Your task to perform on an android device: What is the news today? Image 0: 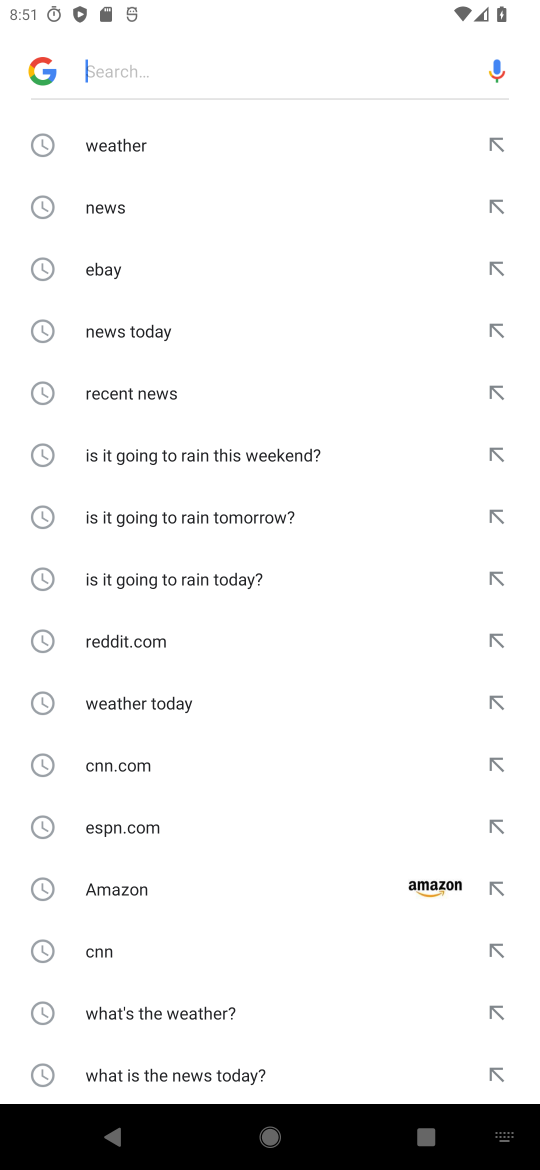
Step 0: click (94, 204)
Your task to perform on an android device: What is the news today? Image 1: 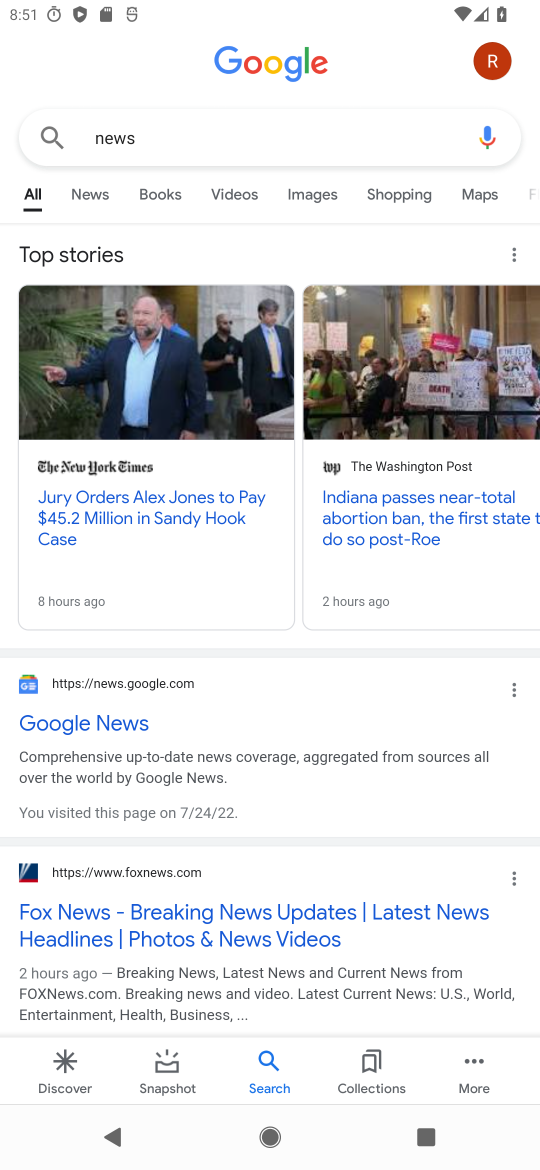
Step 1: click (91, 180)
Your task to perform on an android device: What is the news today? Image 2: 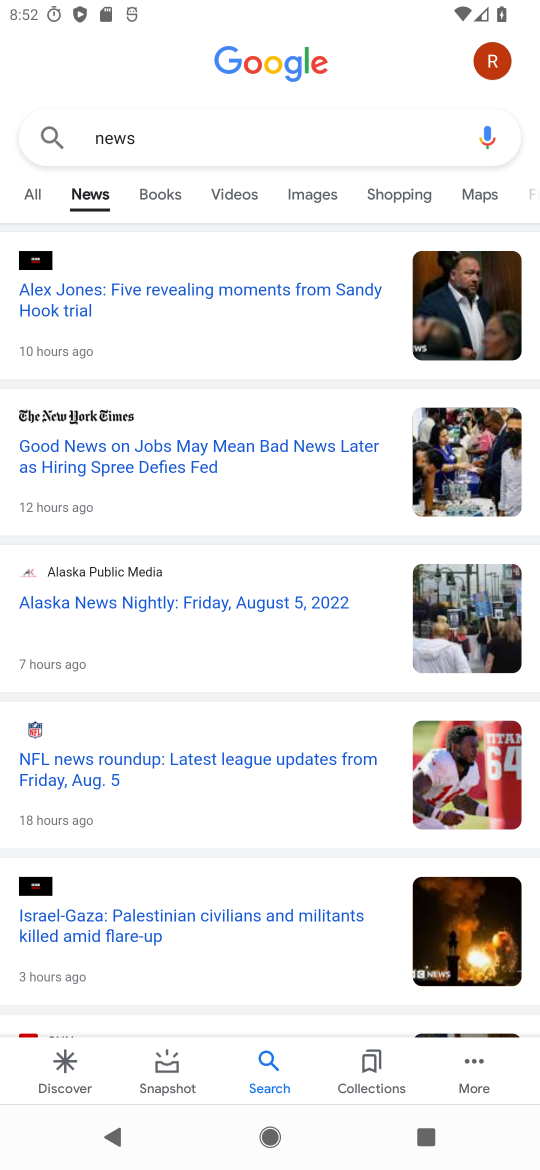
Step 2: task complete